Your task to perform on an android device: Go to location settings Image 0: 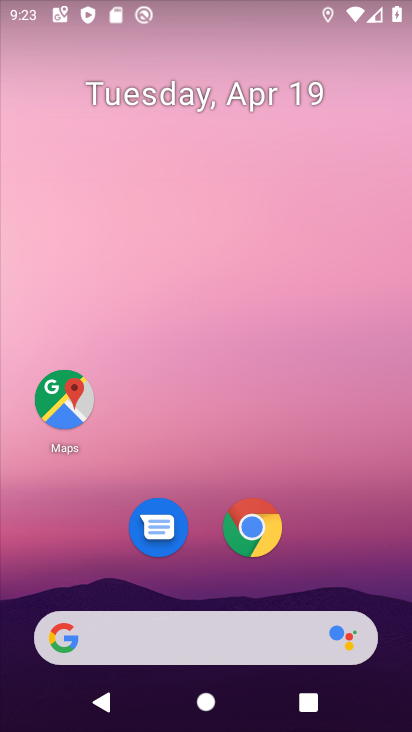
Step 0: drag from (247, 653) to (210, 121)
Your task to perform on an android device: Go to location settings Image 1: 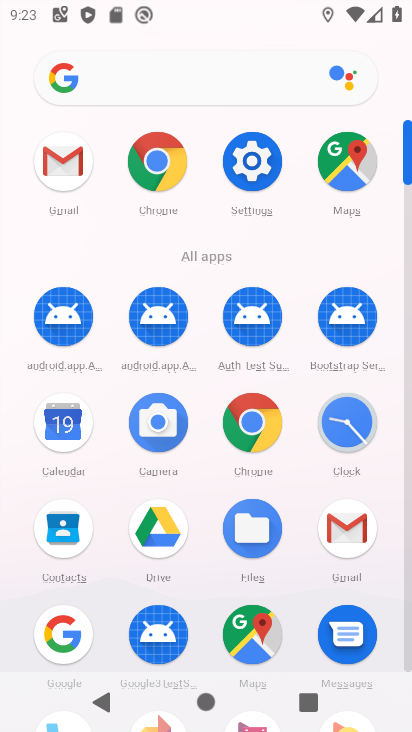
Step 1: click (252, 149)
Your task to perform on an android device: Go to location settings Image 2: 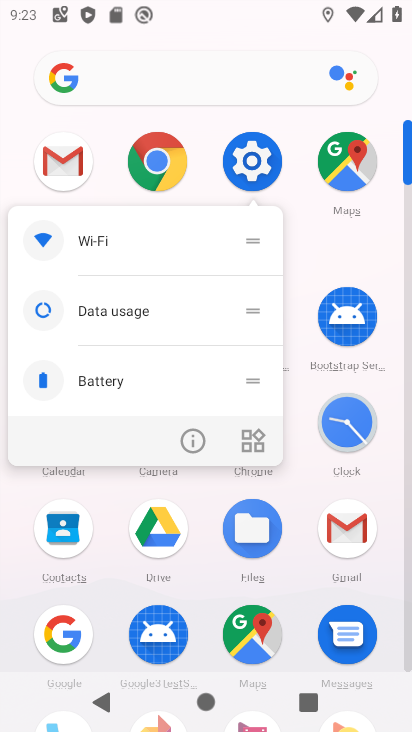
Step 2: click (241, 163)
Your task to perform on an android device: Go to location settings Image 3: 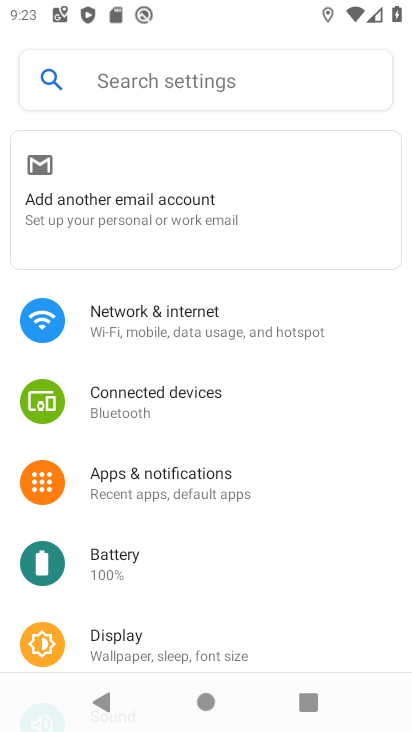
Step 3: click (174, 90)
Your task to perform on an android device: Go to location settings Image 4: 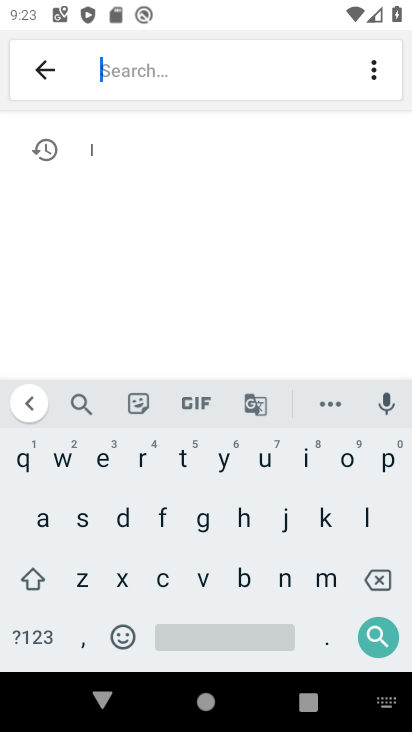
Step 4: click (117, 162)
Your task to perform on an android device: Go to location settings Image 5: 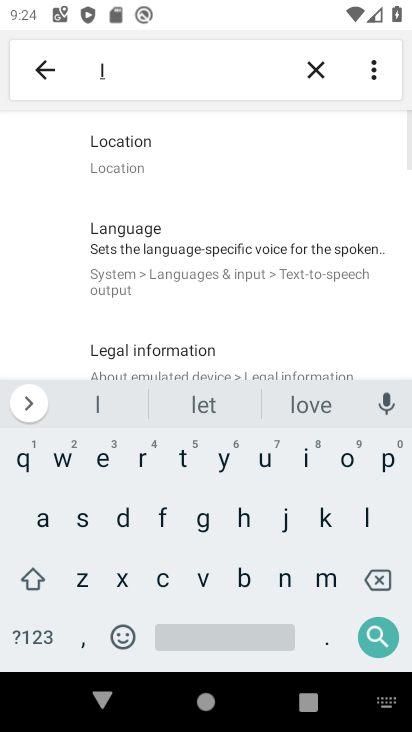
Step 5: click (148, 166)
Your task to perform on an android device: Go to location settings Image 6: 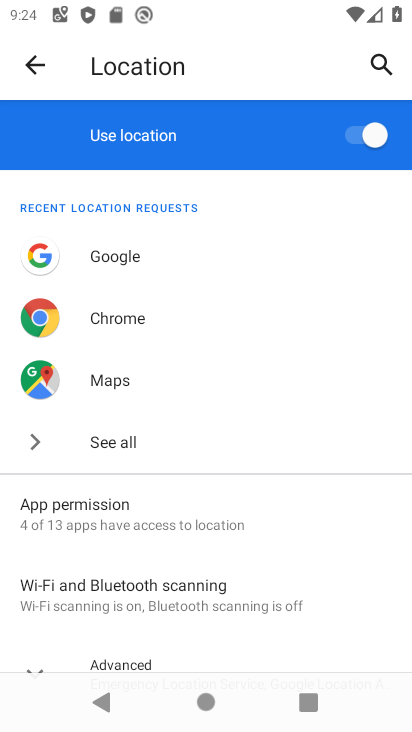
Step 6: drag from (118, 506) to (179, 253)
Your task to perform on an android device: Go to location settings Image 7: 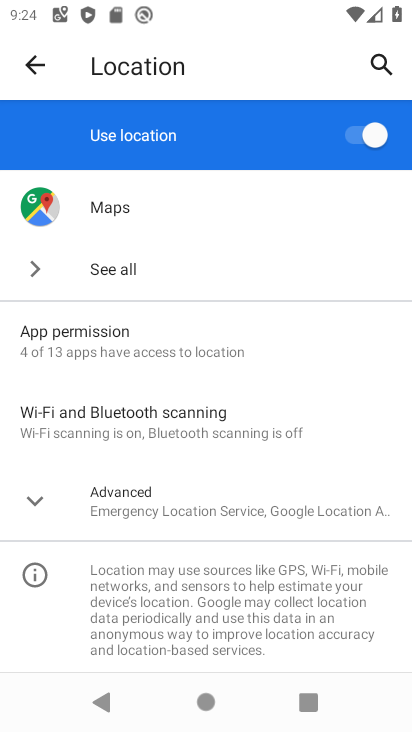
Step 7: click (64, 522)
Your task to perform on an android device: Go to location settings Image 8: 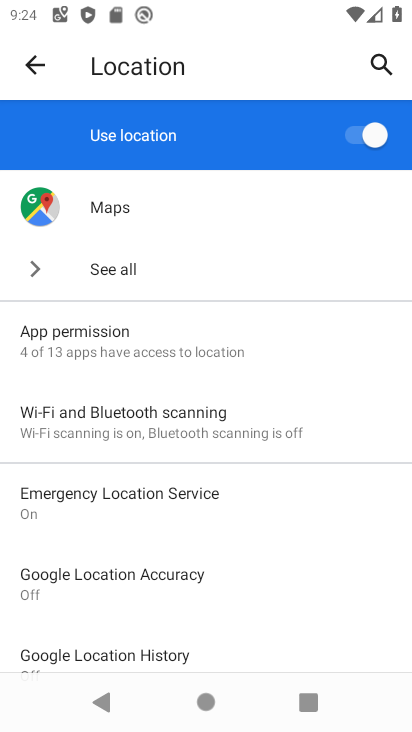
Step 8: task complete